Your task to perform on an android device: Open the calendar app, open the side menu, and click the "Day" option Image 0: 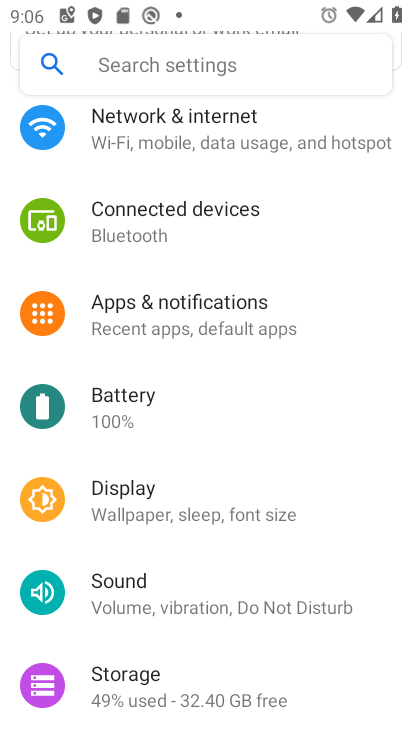
Step 0: press home button
Your task to perform on an android device: Open the calendar app, open the side menu, and click the "Day" option Image 1: 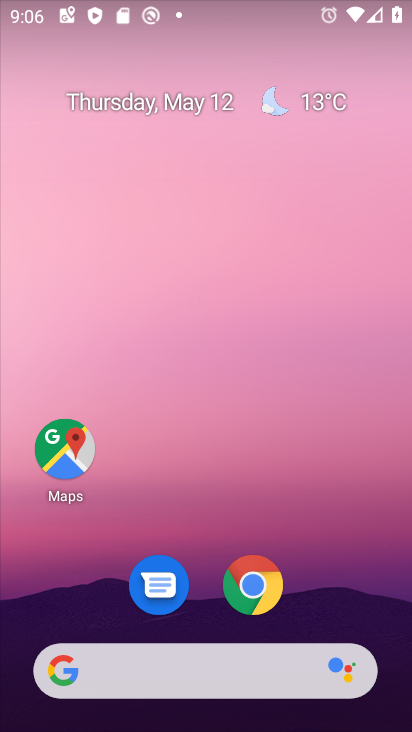
Step 1: drag from (217, 480) to (214, 60)
Your task to perform on an android device: Open the calendar app, open the side menu, and click the "Day" option Image 2: 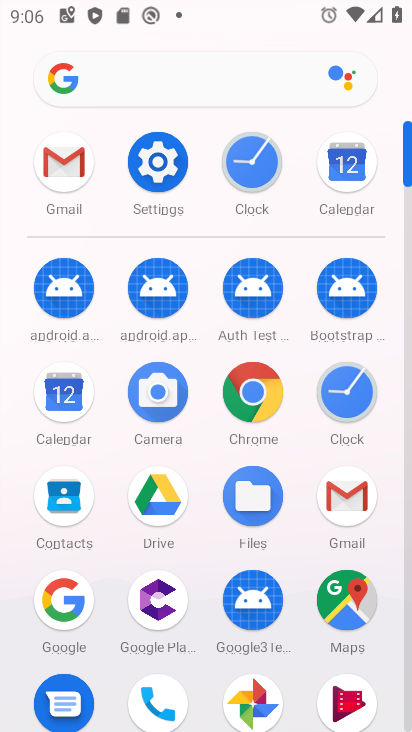
Step 2: click (60, 394)
Your task to perform on an android device: Open the calendar app, open the side menu, and click the "Day" option Image 3: 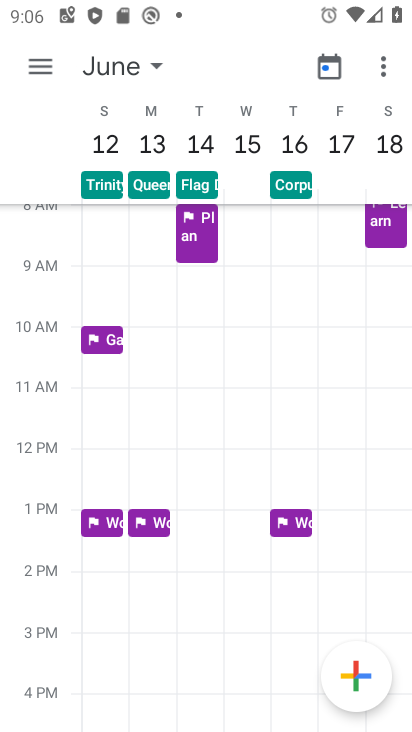
Step 3: drag from (92, 411) to (385, 444)
Your task to perform on an android device: Open the calendar app, open the side menu, and click the "Day" option Image 4: 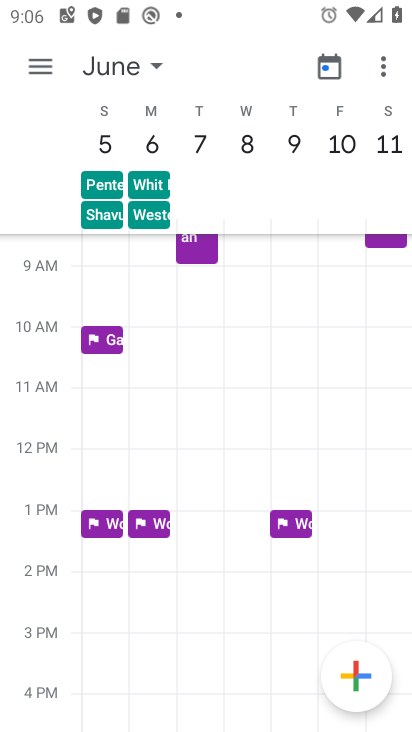
Step 4: click (34, 51)
Your task to perform on an android device: Open the calendar app, open the side menu, and click the "Day" option Image 5: 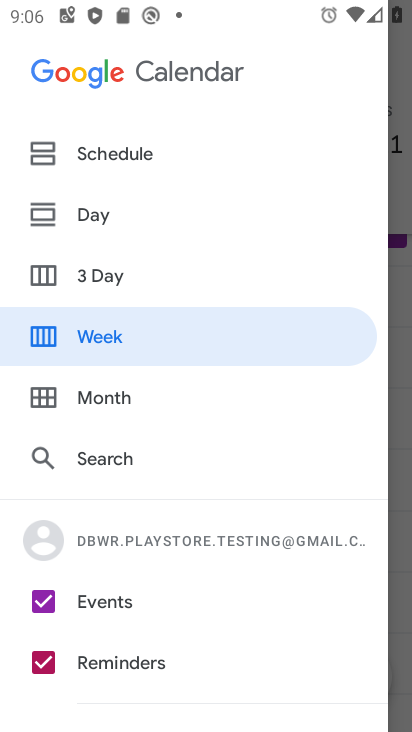
Step 5: click (81, 216)
Your task to perform on an android device: Open the calendar app, open the side menu, and click the "Day" option Image 6: 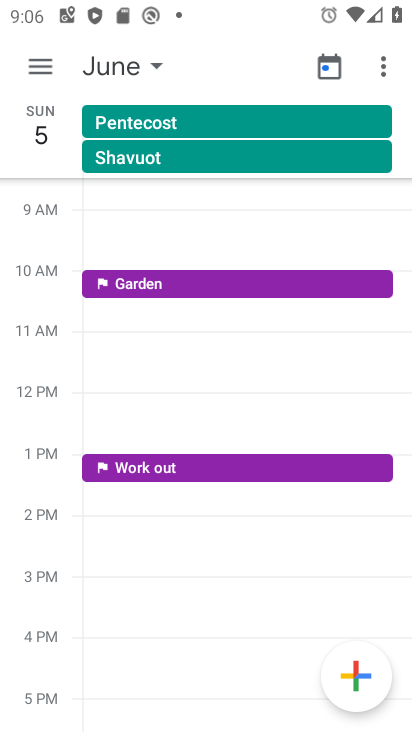
Step 6: task complete